Your task to perform on an android device: check out phone information Image 0: 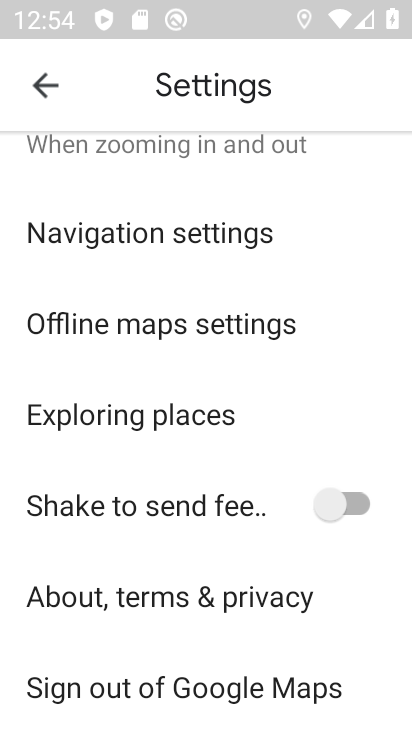
Step 0: press home button
Your task to perform on an android device: check out phone information Image 1: 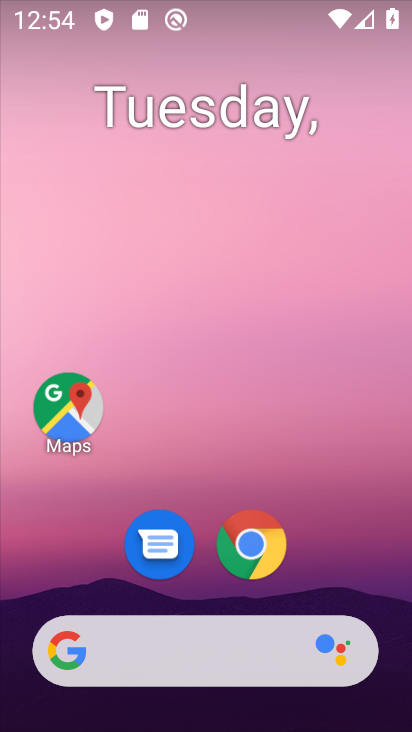
Step 1: drag from (402, 621) to (352, 116)
Your task to perform on an android device: check out phone information Image 2: 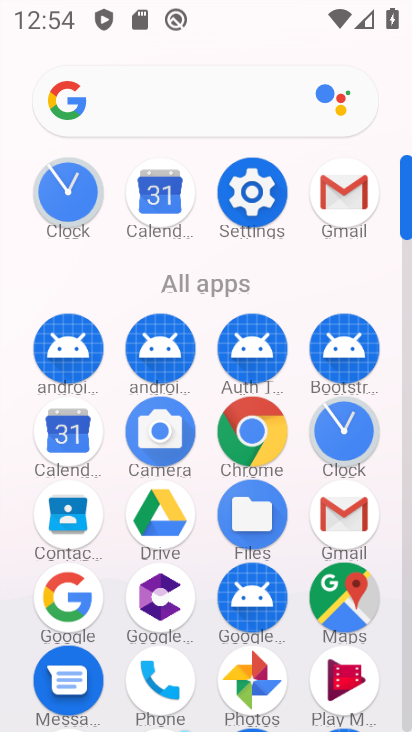
Step 2: click (410, 713)
Your task to perform on an android device: check out phone information Image 3: 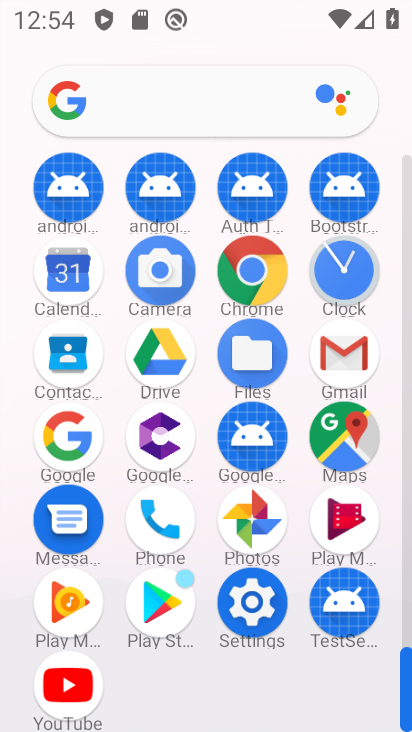
Step 3: click (253, 602)
Your task to perform on an android device: check out phone information Image 4: 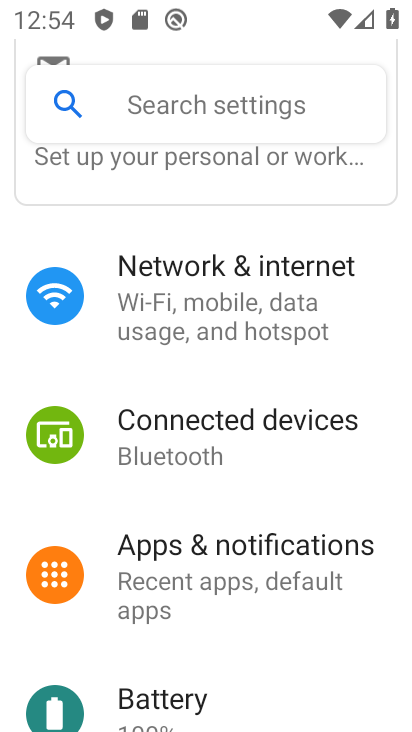
Step 4: drag from (378, 642) to (303, 143)
Your task to perform on an android device: check out phone information Image 5: 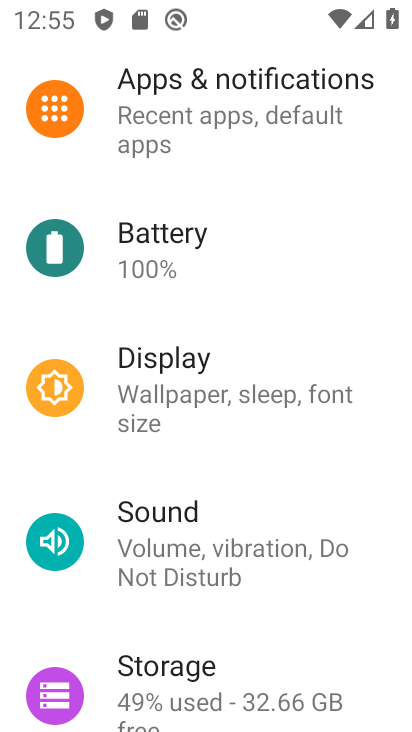
Step 5: drag from (339, 587) to (326, 168)
Your task to perform on an android device: check out phone information Image 6: 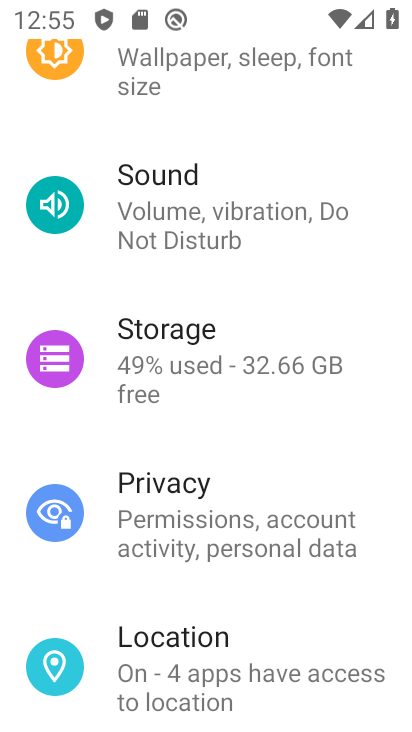
Step 6: drag from (360, 598) to (350, 205)
Your task to perform on an android device: check out phone information Image 7: 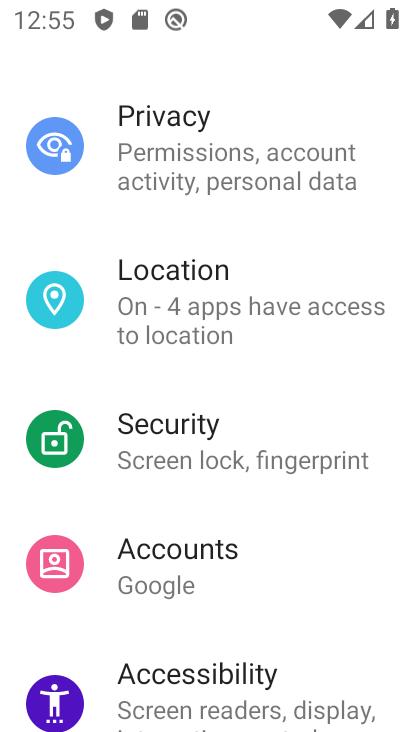
Step 7: drag from (341, 587) to (351, 184)
Your task to perform on an android device: check out phone information Image 8: 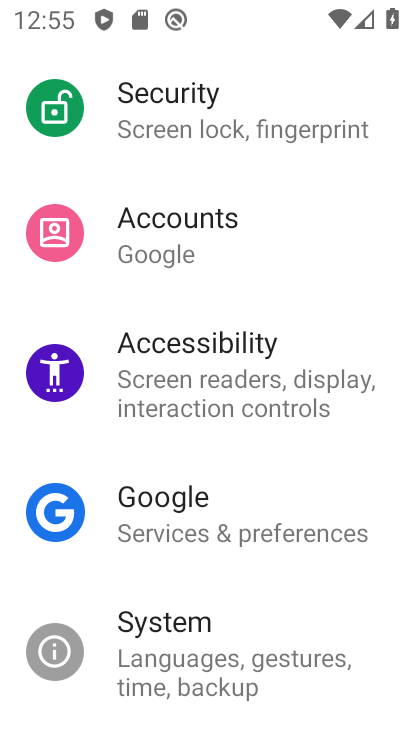
Step 8: drag from (360, 631) to (340, 252)
Your task to perform on an android device: check out phone information Image 9: 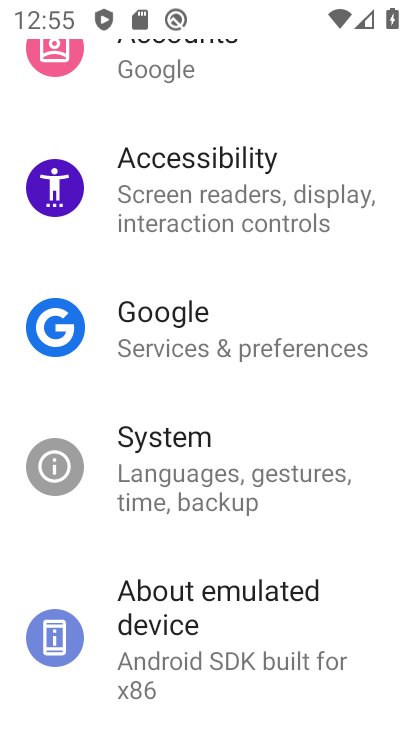
Step 9: click (193, 603)
Your task to perform on an android device: check out phone information Image 10: 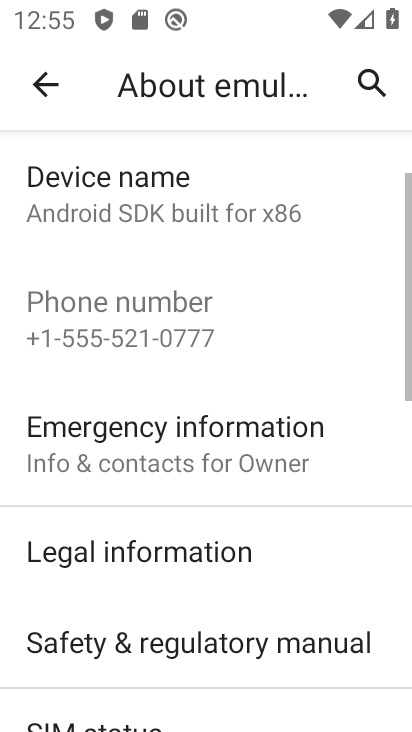
Step 10: task complete